Your task to perform on an android device: Go to settings Image 0: 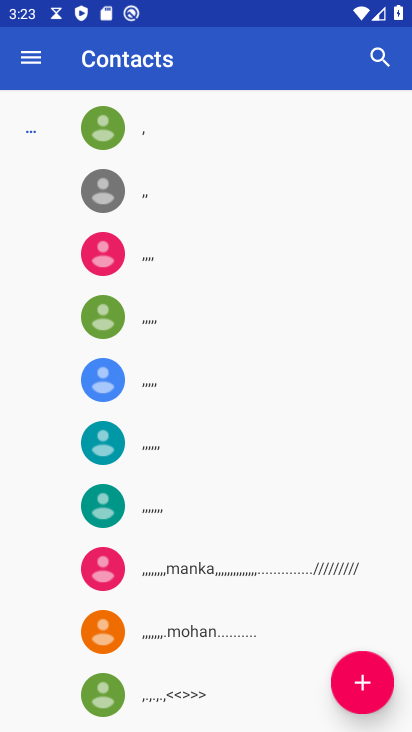
Step 0: press home button
Your task to perform on an android device: Go to settings Image 1: 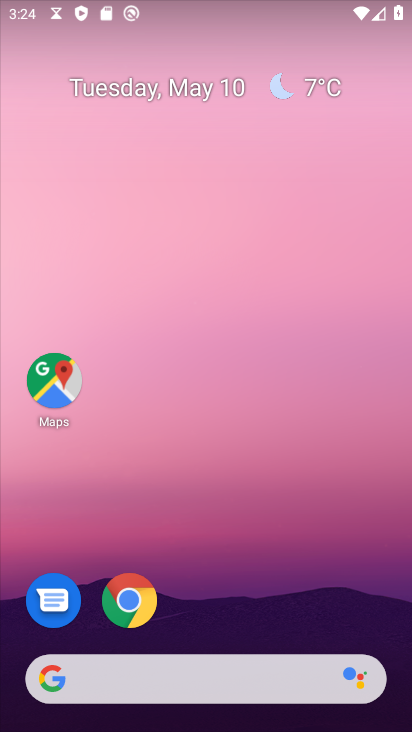
Step 1: drag from (272, 614) to (171, 153)
Your task to perform on an android device: Go to settings Image 2: 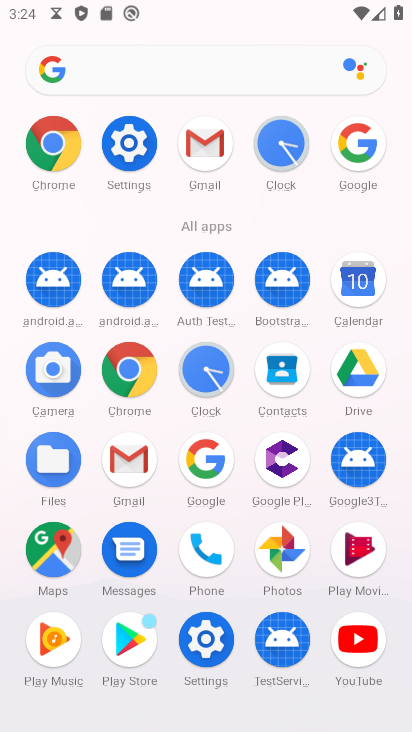
Step 2: click (114, 156)
Your task to perform on an android device: Go to settings Image 3: 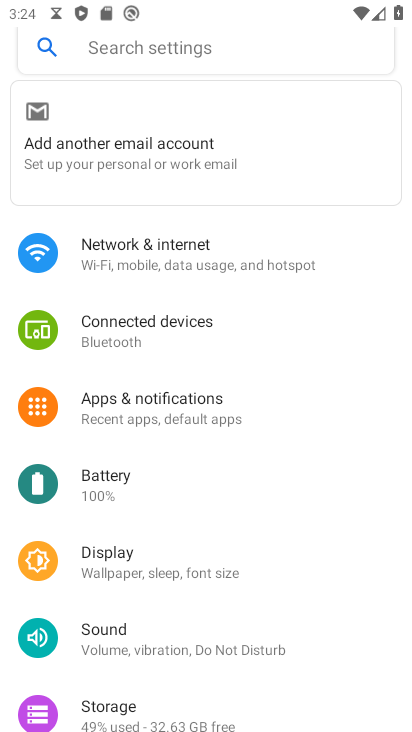
Step 3: task complete